Your task to perform on an android device: Clear all items from cart on target. Add beats solo 3 to the cart on target Image 0: 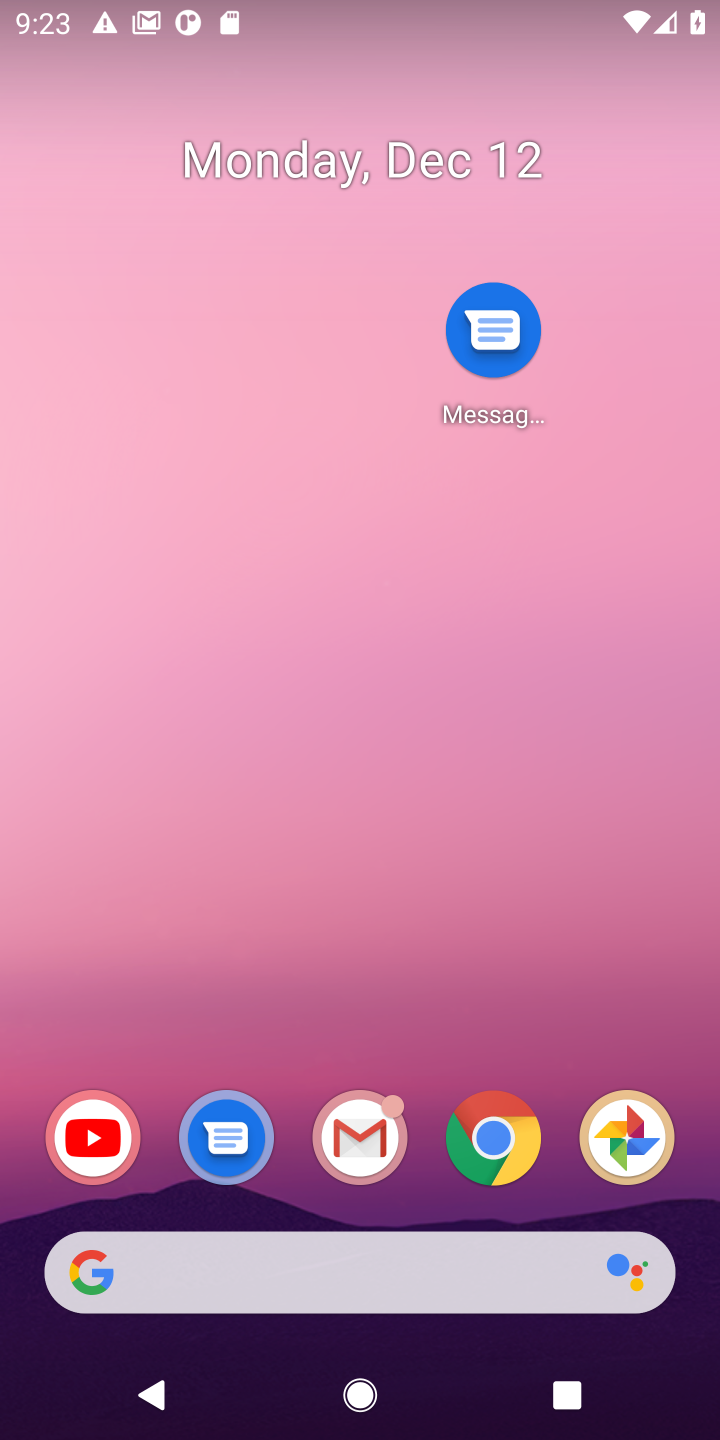
Step 0: drag from (495, 1230) to (315, 12)
Your task to perform on an android device: Clear all items from cart on target. Add beats solo 3 to the cart on target Image 1: 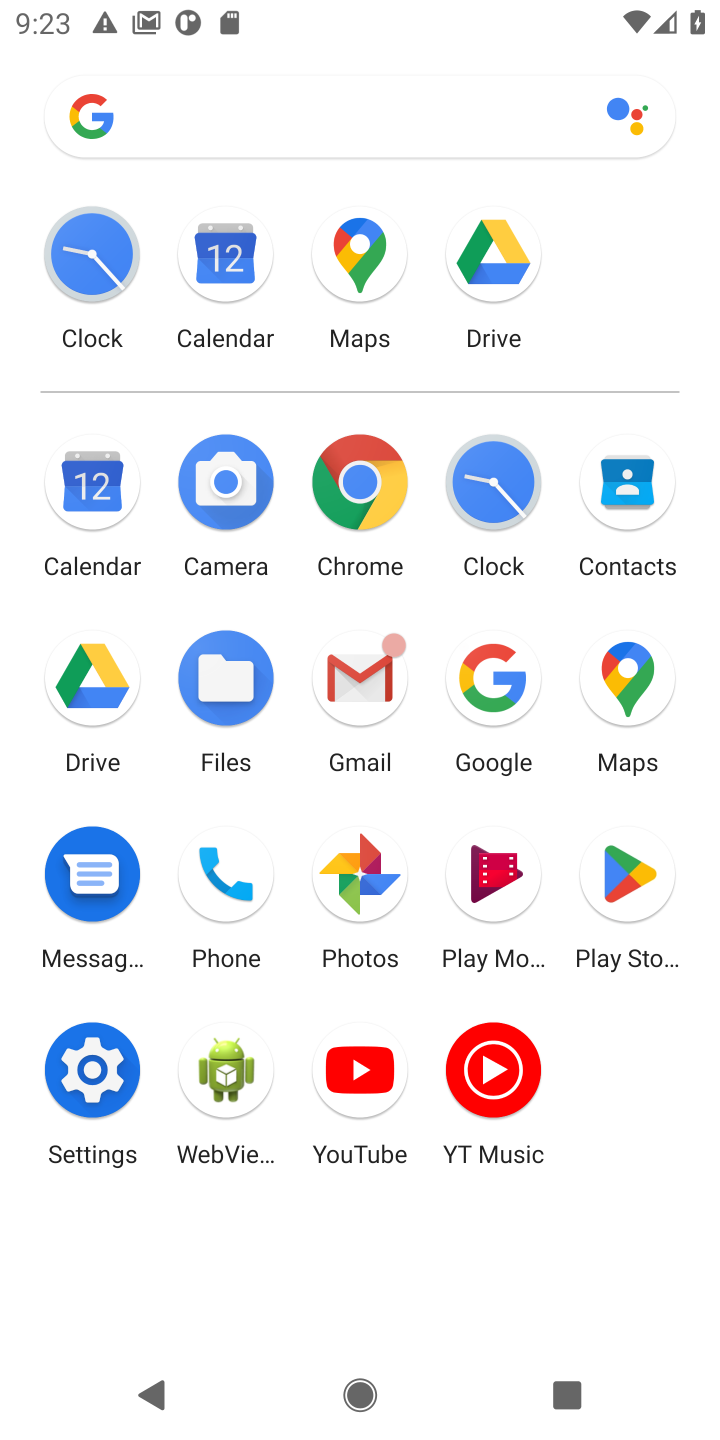
Step 1: click (514, 684)
Your task to perform on an android device: Clear all items from cart on target. Add beats solo 3 to the cart on target Image 2: 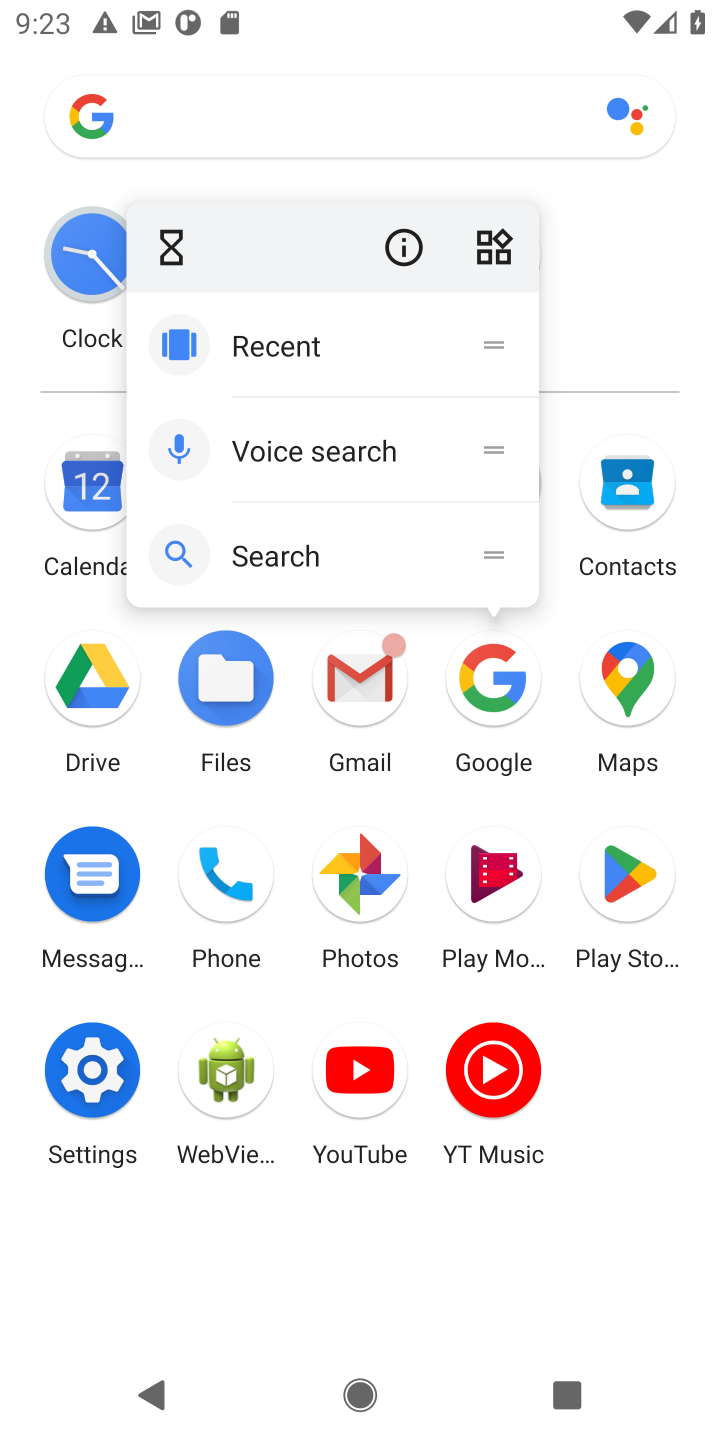
Step 2: click (481, 670)
Your task to perform on an android device: Clear all items from cart on target. Add beats solo 3 to the cart on target Image 3: 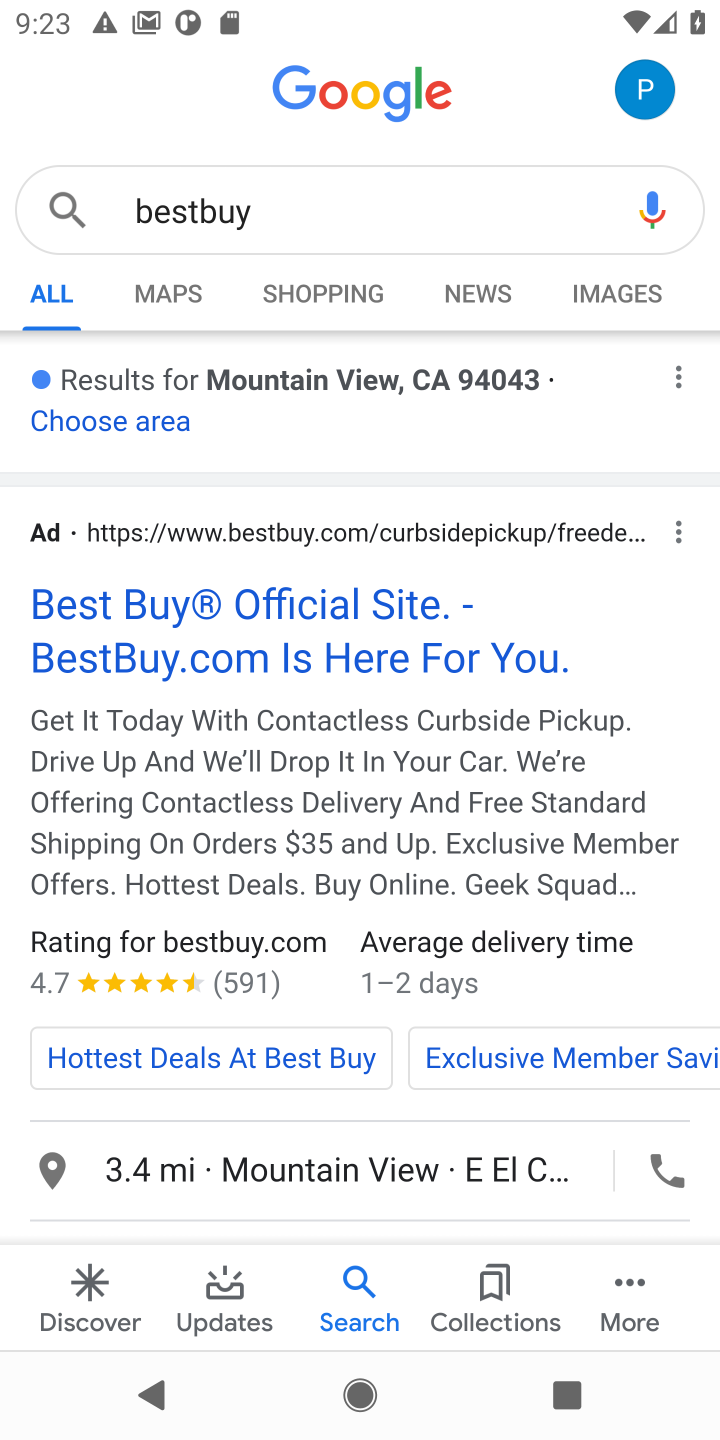
Step 3: click (205, 214)
Your task to perform on an android device: Clear all items from cart on target. Add beats solo 3 to the cart on target Image 4: 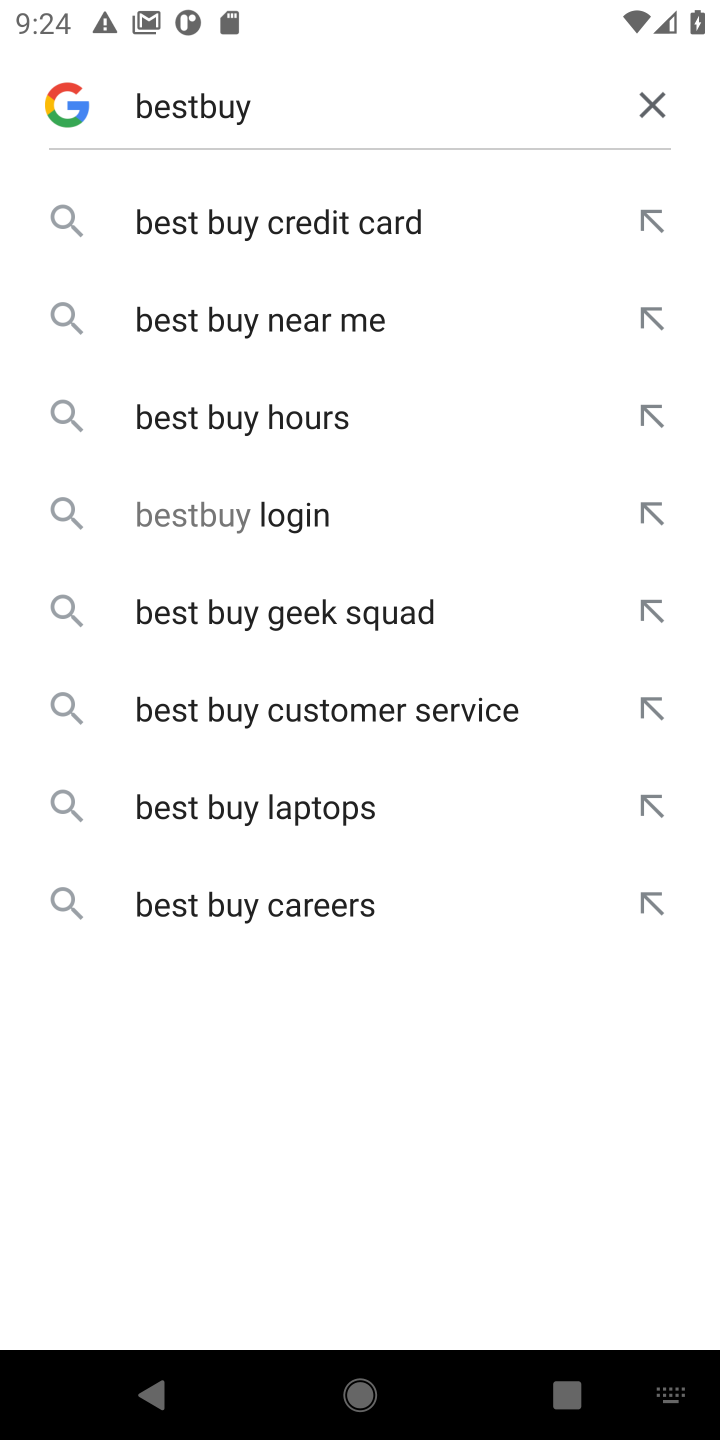
Step 4: click (653, 103)
Your task to perform on an android device: Clear all items from cart on target. Add beats solo 3 to the cart on target Image 5: 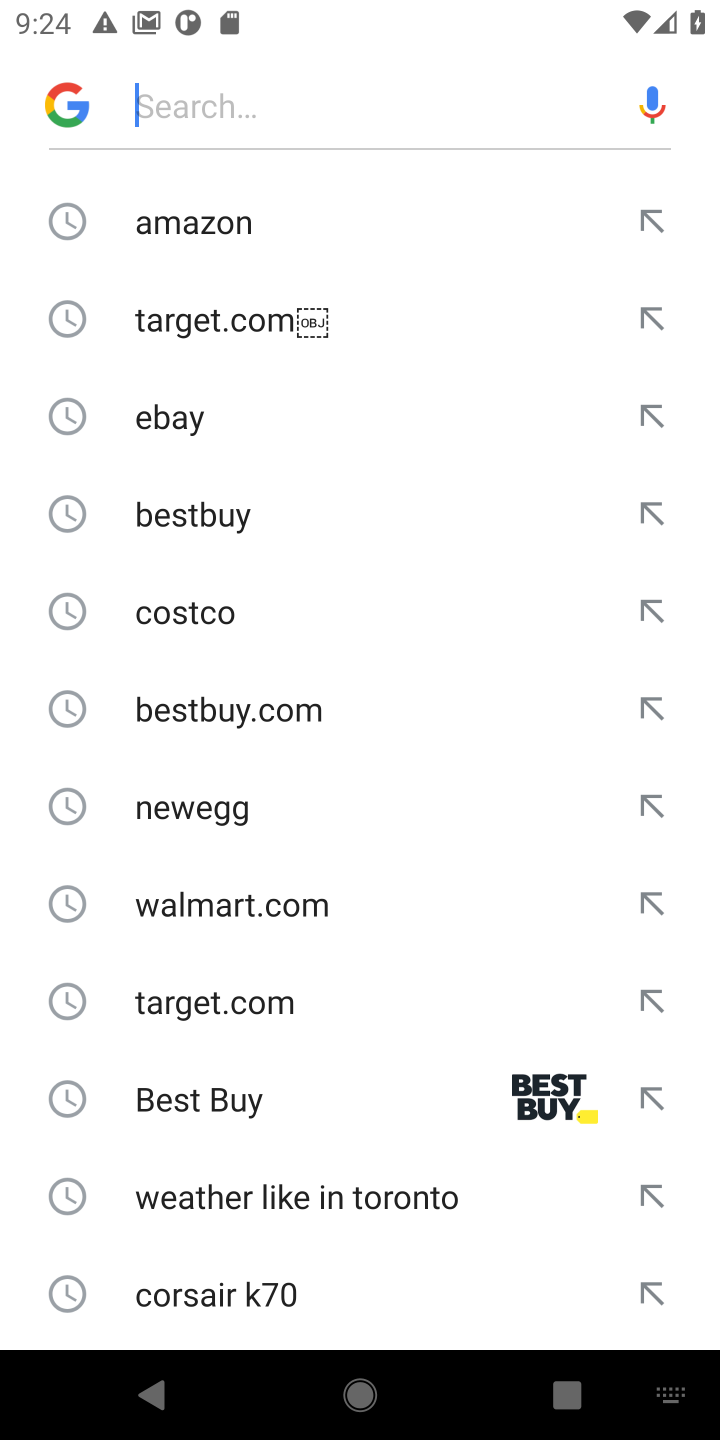
Step 5: click (172, 307)
Your task to perform on an android device: Clear all items from cart on target. Add beats solo 3 to the cart on target Image 6: 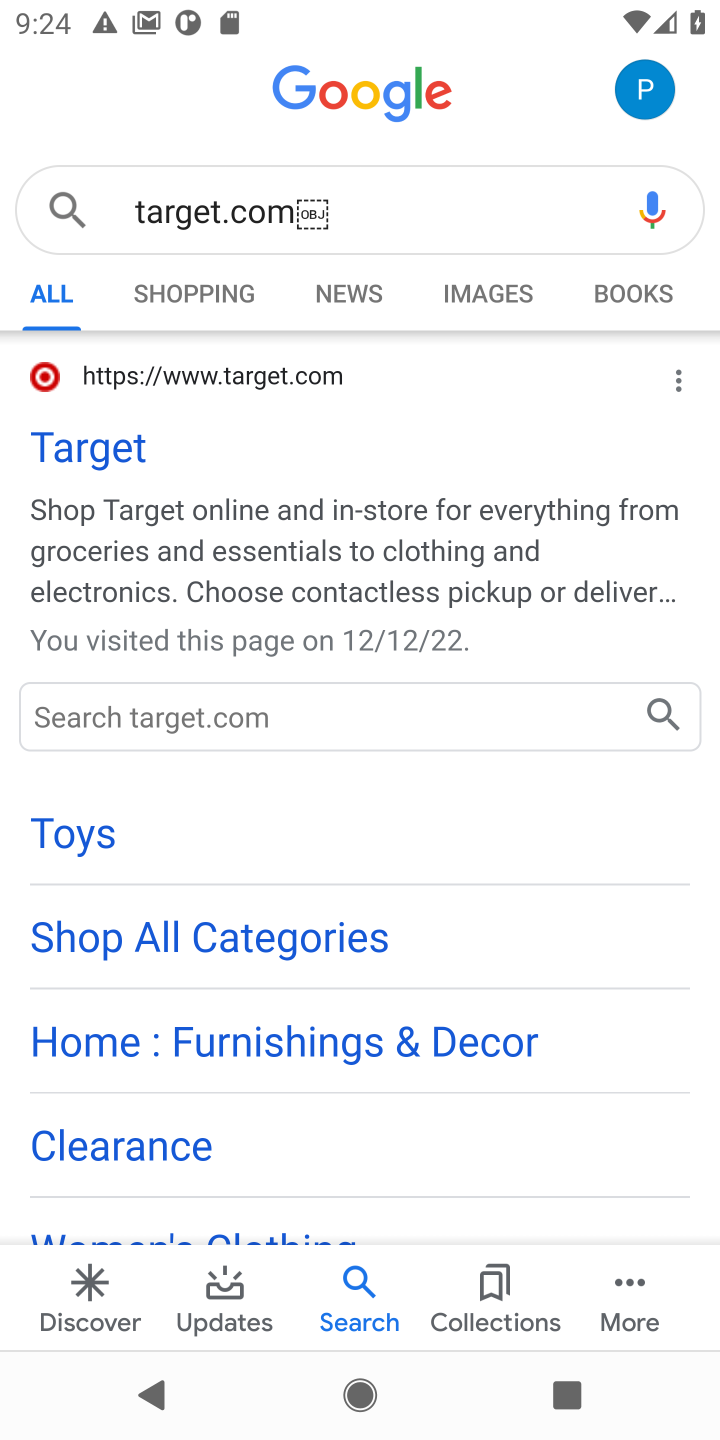
Step 6: click (93, 475)
Your task to perform on an android device: Clear all items from cart on target. Add beats solo 3 to the cart on target Image 7: 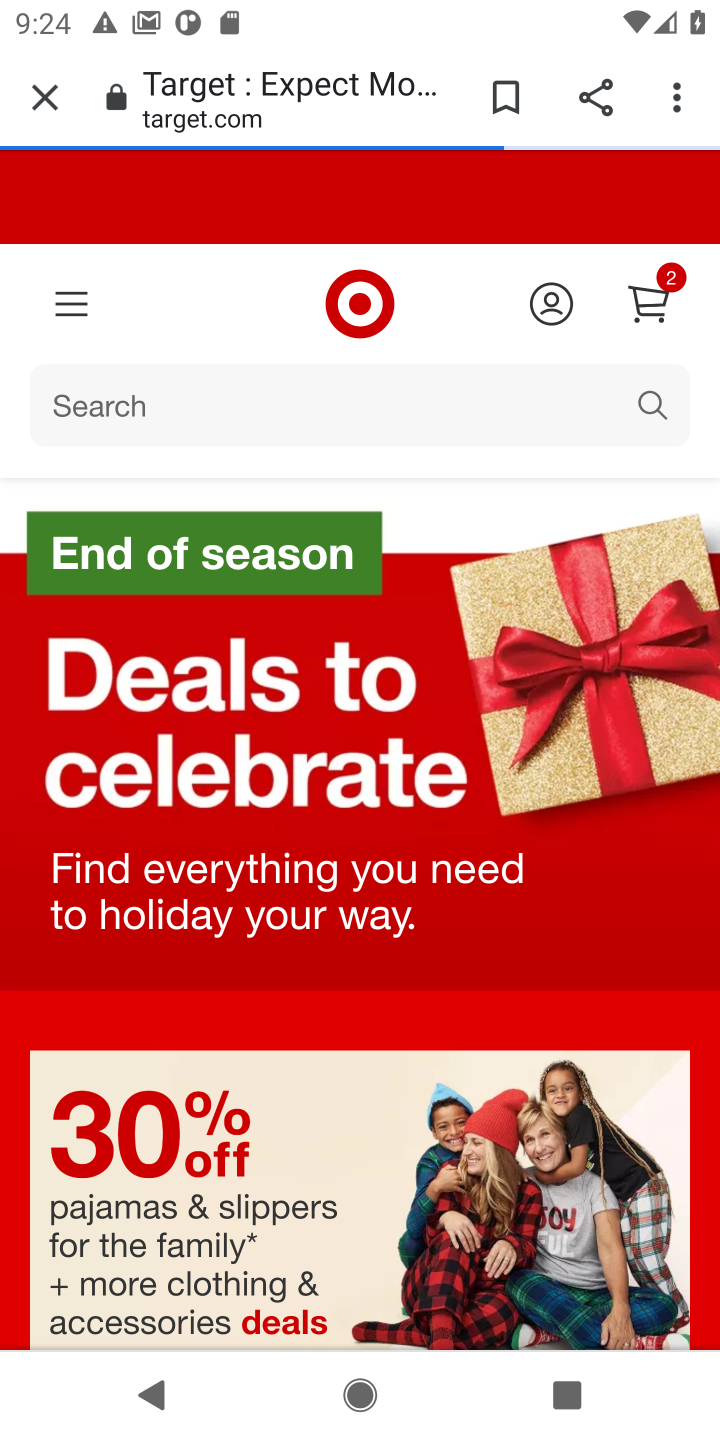
Step 7: click (212, 407)
Your task to perform on an android device: Clear all items from cart on target. Add beats solo 3 to the cart on target Image 8: 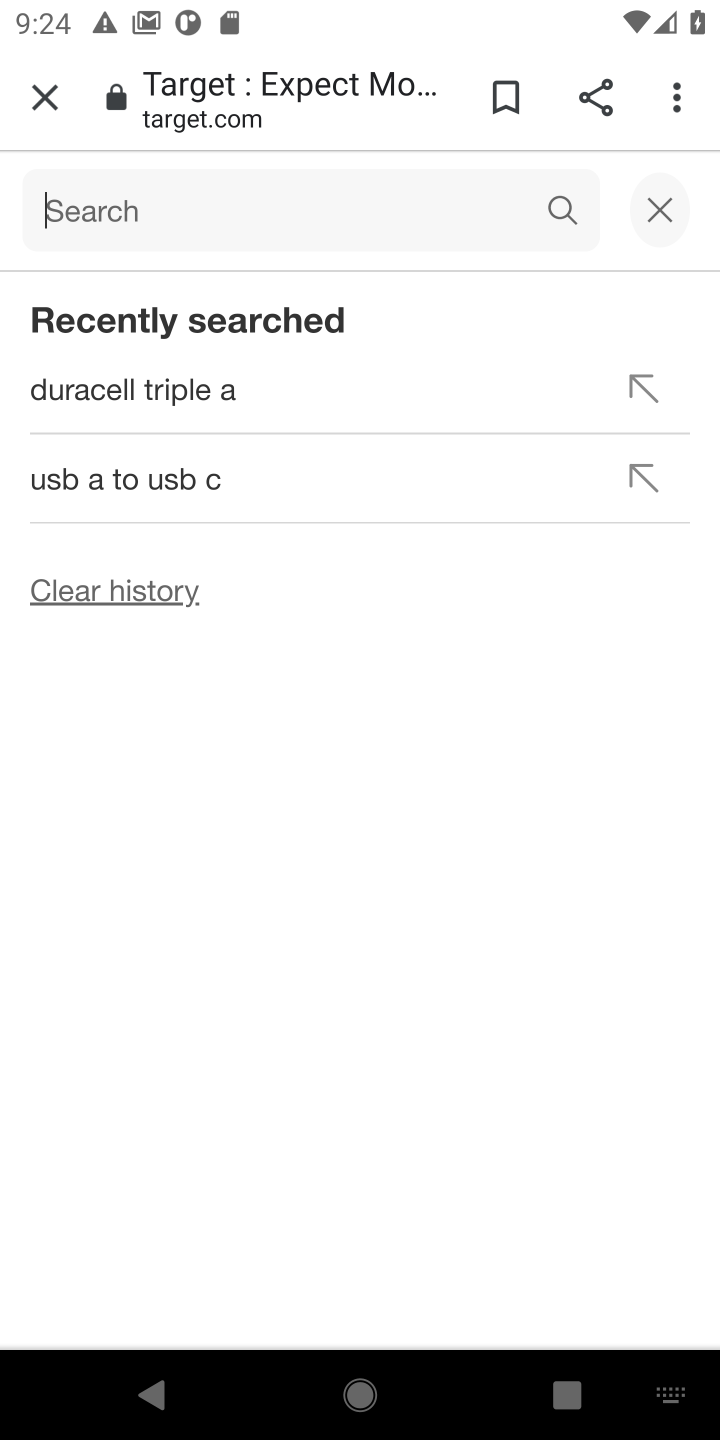
Step 8: click (114, 200)
Your task to perform on an android device: Clear all items from cart on target. Add beats solo 3 to the cart on target Image 9: 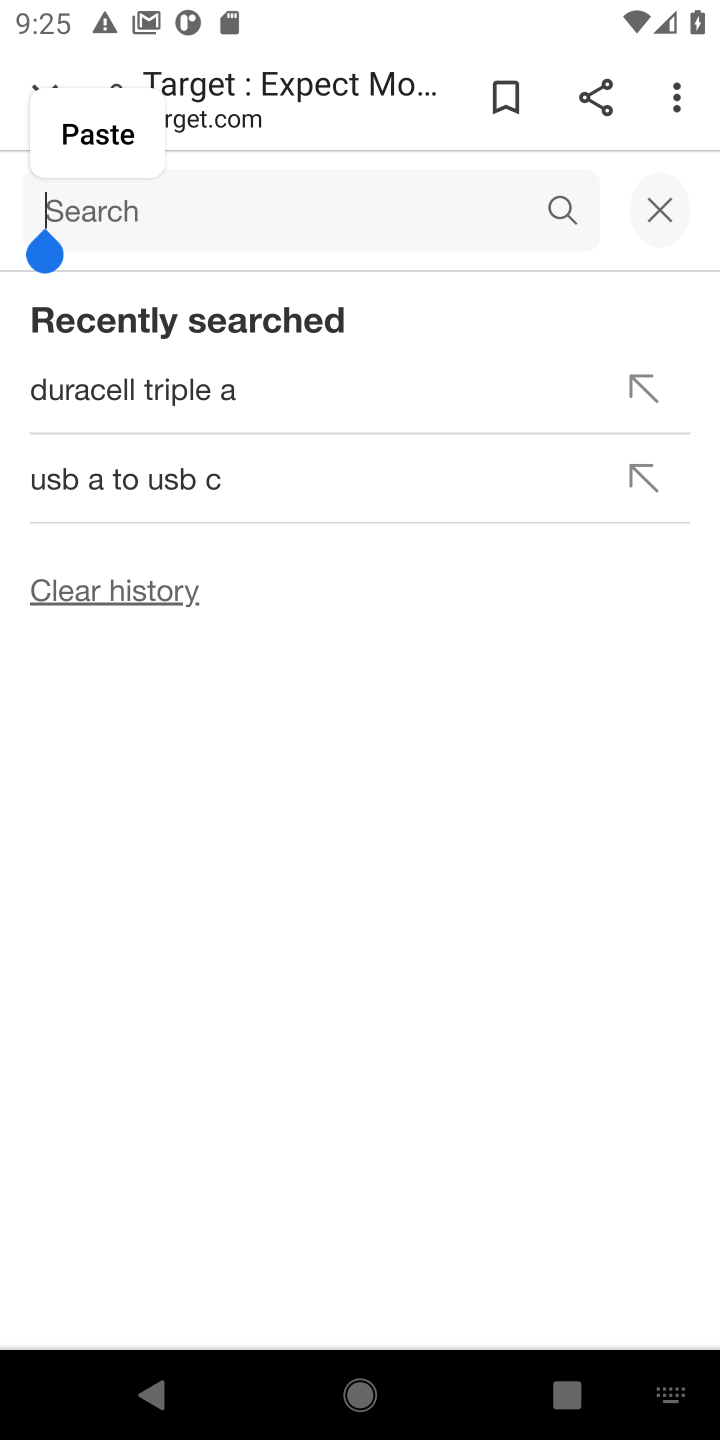
Step 9: type "beats solo 3"
Your task to perform on an android device: Clear all items from cart on target. Add beats solo 3 to the cart on target Image 10: 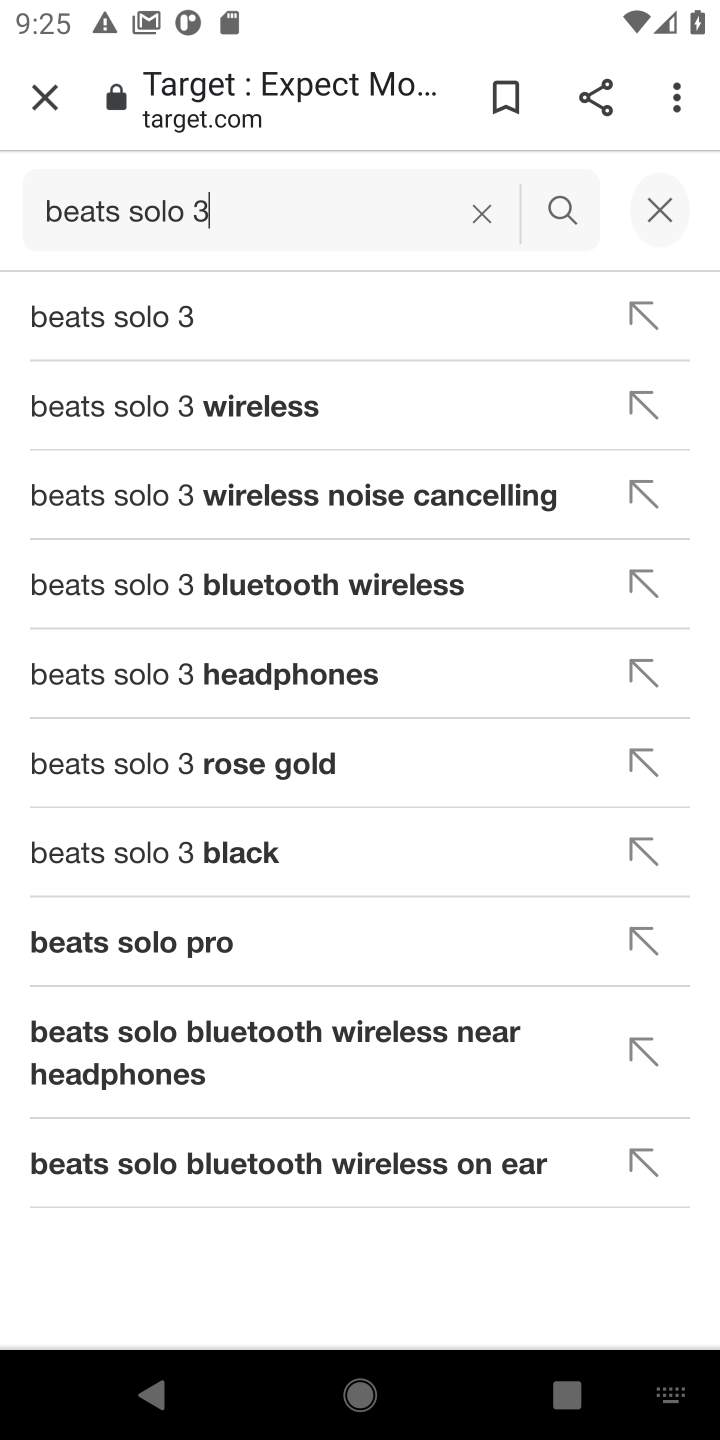
Step 10: click (109, 319)
Your task to perform on an android device: Clear all items from cart on target. Add beats solo 3 to the cart on target Image 11: 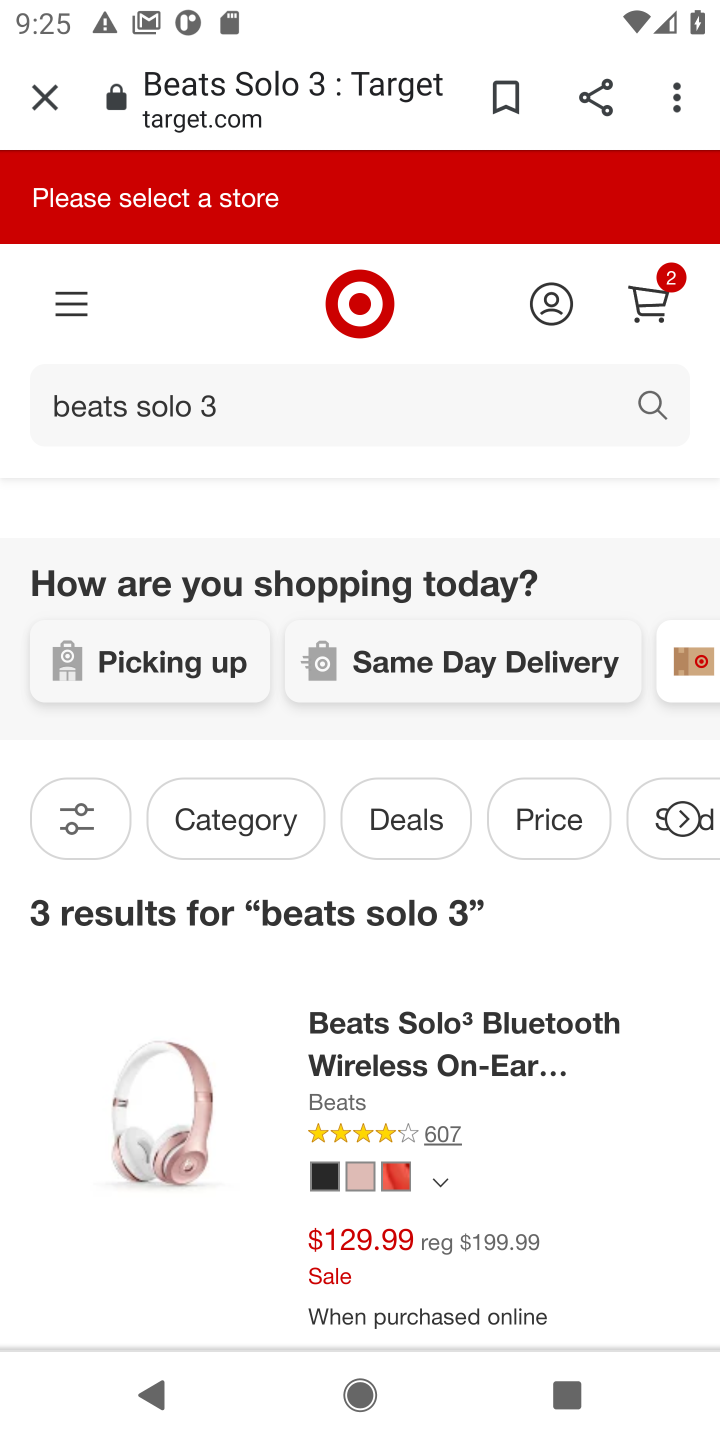
Step 11: drag from (421, 1193) to (452, 547)
Your task to perform on an android device: Clear all items from cart on target. Add beats solo 3 to the cart on target Image 12: 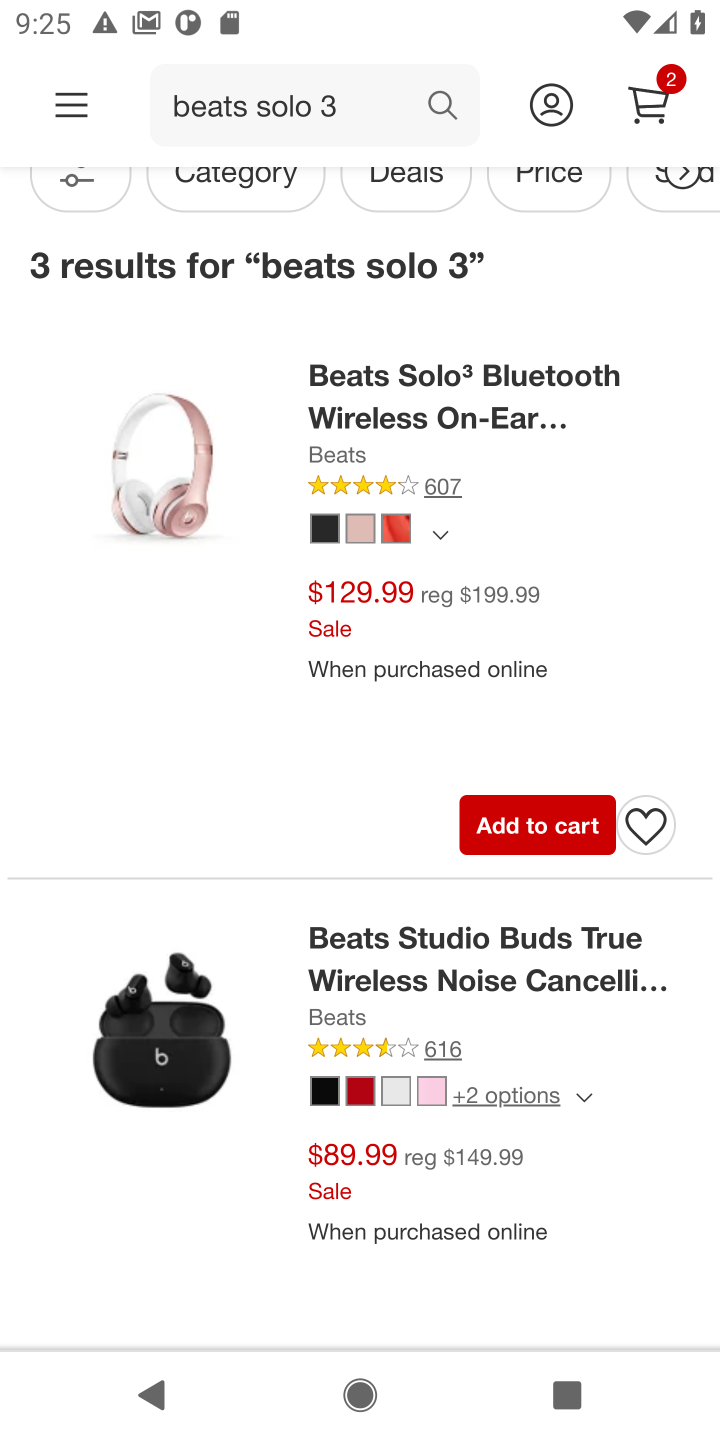
Step 12: click (496, 819)
Your task to perform on an android device: Clear all items from cart on target. Add beats solo 3 to the cart on target Image 13: 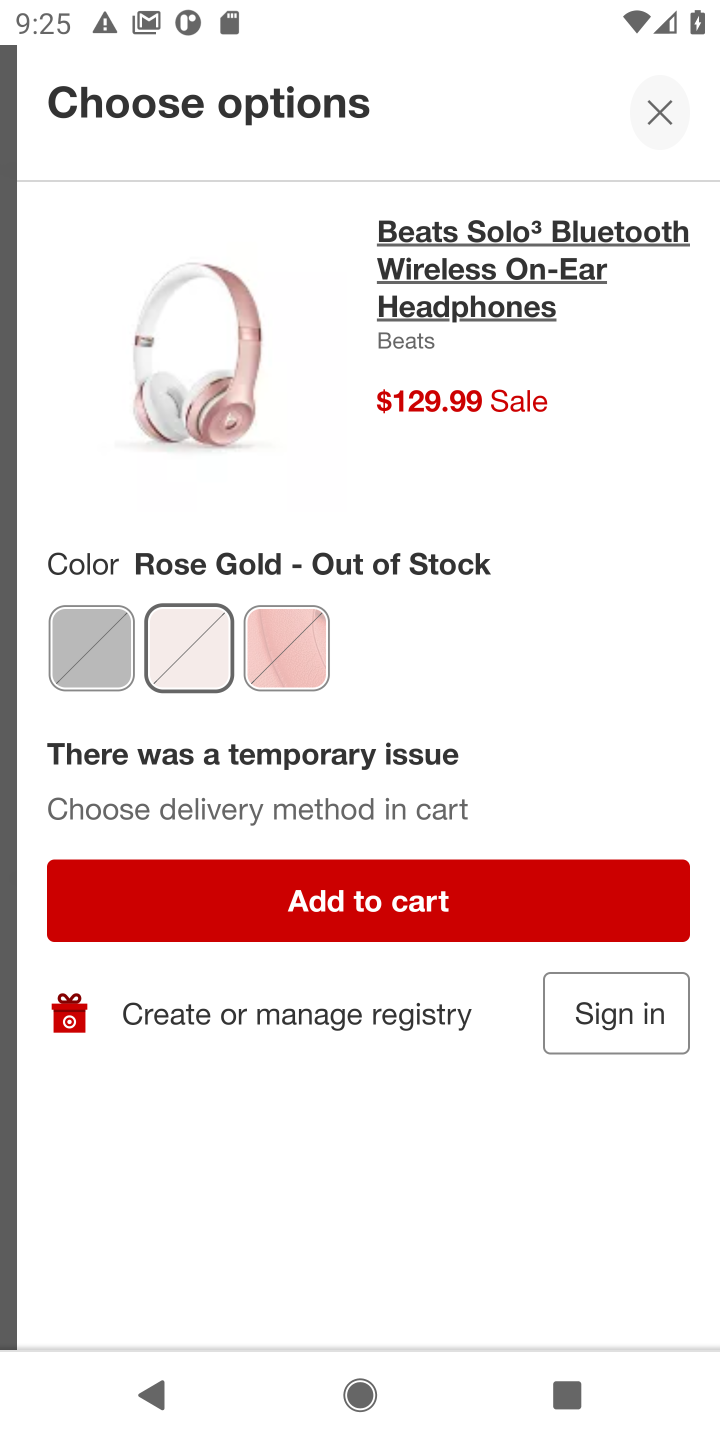
Step 13: click (675, 117)
Your task to perform on an android device: Clear all items from cart on target. Add beats solo 3 to the cart on target Image 14: 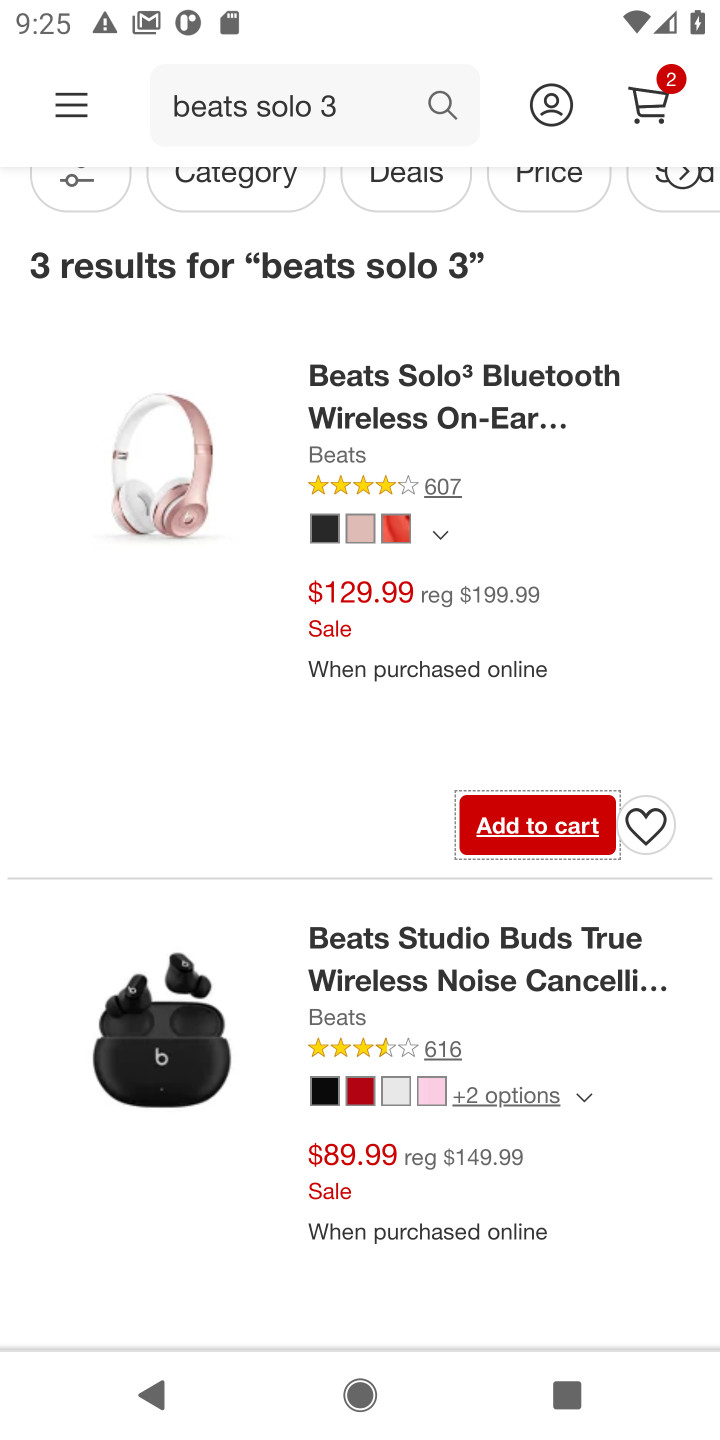
Step 14: click (650, 85)
Your task to perform on an android device: Clear all items from cart on target. Add beats solo 3 to the cart on target Image 15: 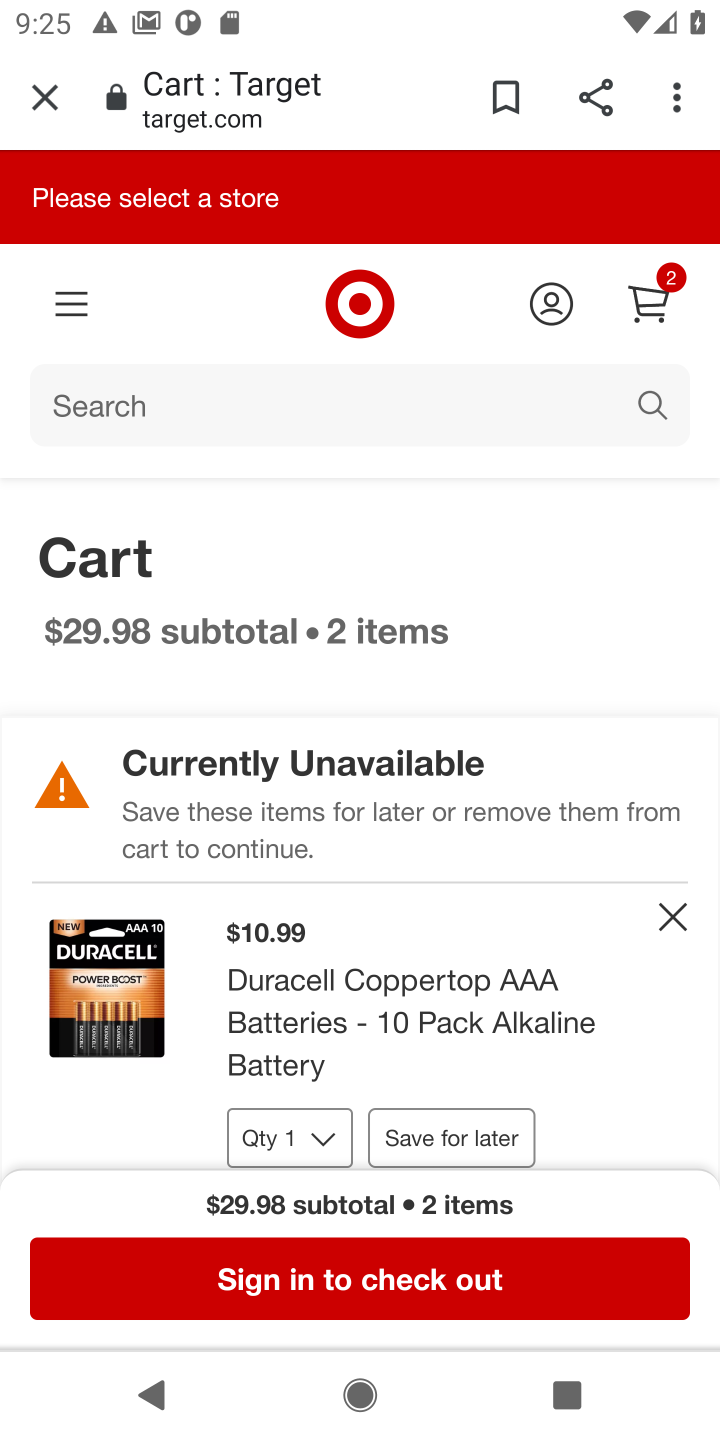
Step 15: click (323, 1285)
Your task to perform on an android device: Clear all items from cart on target. Add beats solo 3 to the cart on target Image 16: 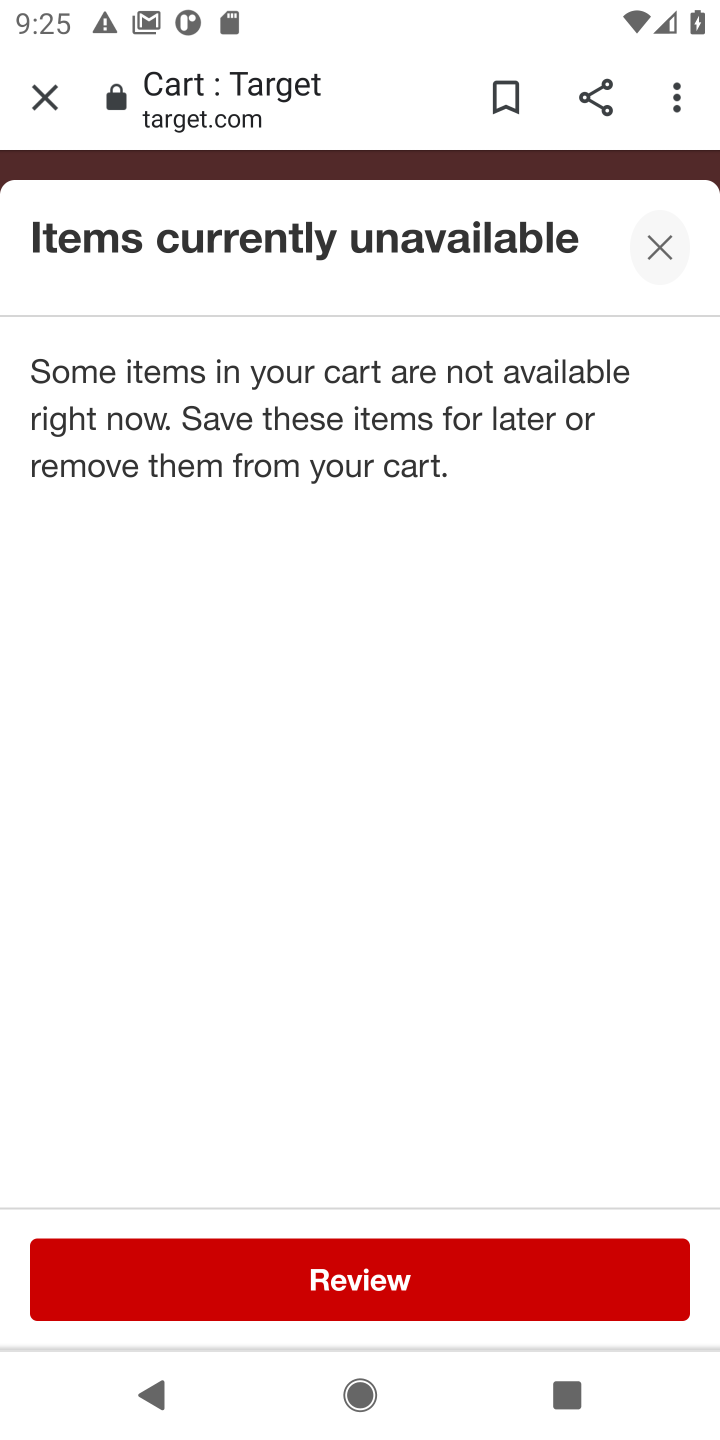
Step 16: task complete